Your task to perform on an android device: Open my contact list Image 0: 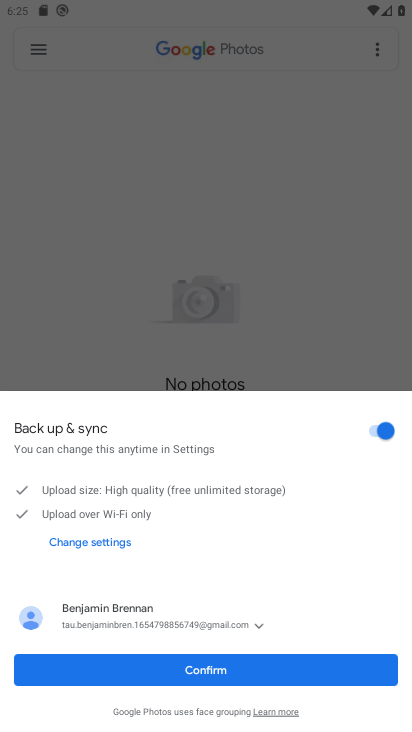
Step 0: press home button
Your task to perform on an android device: Open my contact list Image 1: 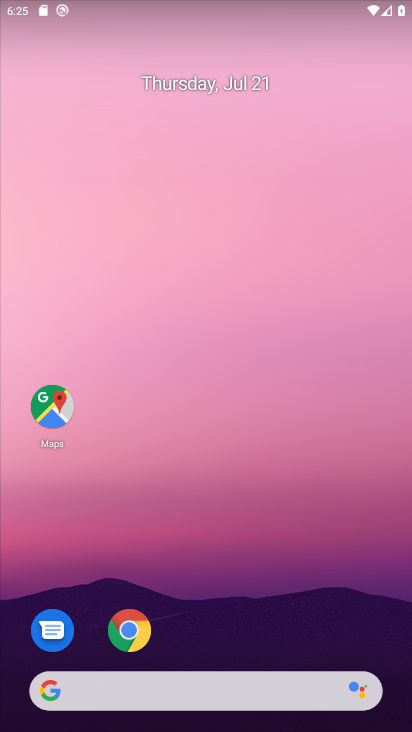
Step 1: drag from (216, 688) to (266, 193)
Your task to perform on an android device: Open my contact list Image 2: 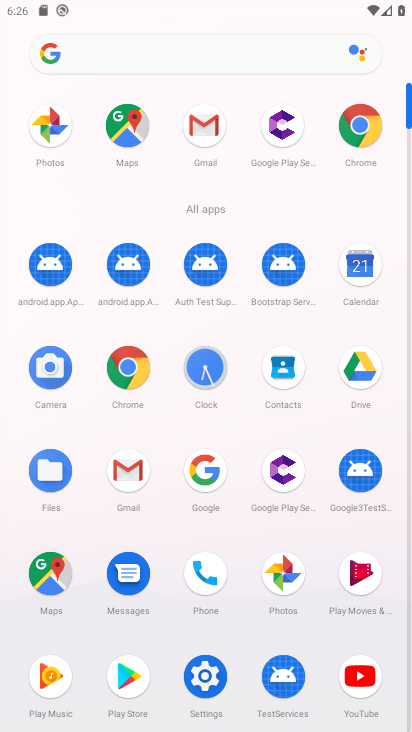
Step 2: click (283, 369)
Your task to perform on an android device: Open my contact list Image 3: 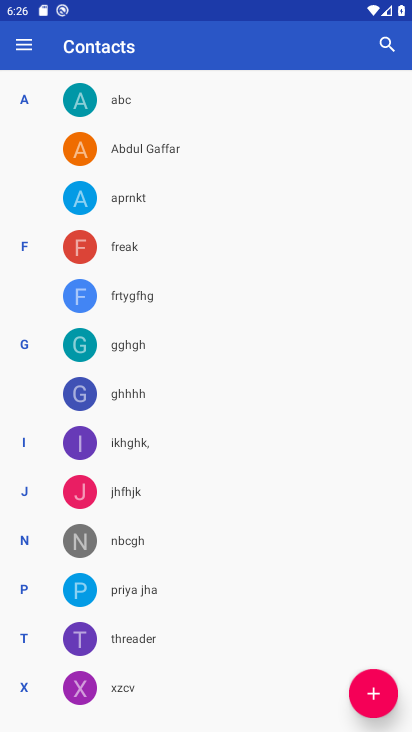
Step 3: task complete